Your task to perform on an android device: open a bookmark in the chrome app Image 0: 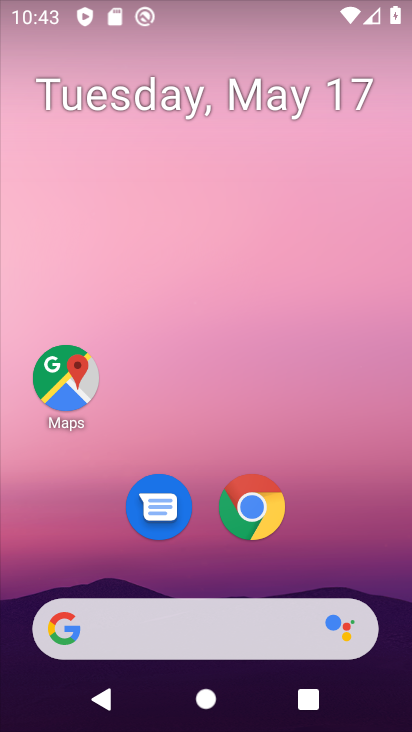
Step 0: drag from (381, 560) to (344, 151)
Your task to perform on an android device: open a bookmark in the chrome app Image 1: 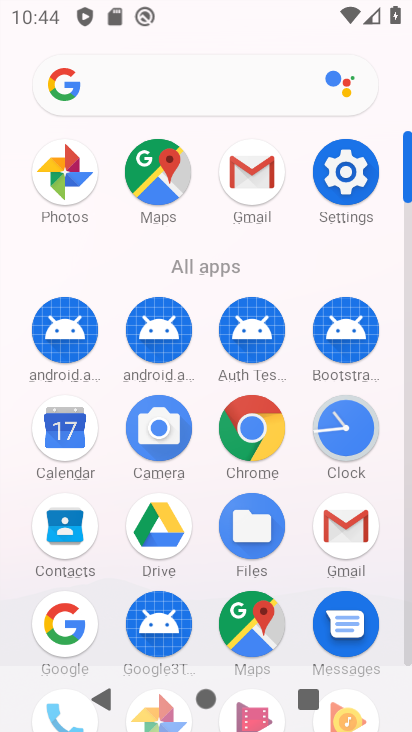
Step 1: click (261, 434)
Your task to perform on an android device: open a bookmark in the chrome app Image 2: 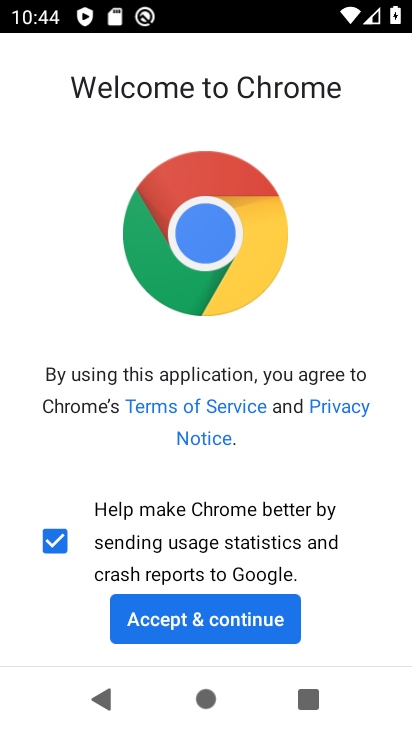
Step 2: click (239, 622)
Your task to perform on an android device: open a bookmark in the chrome app Image 3: 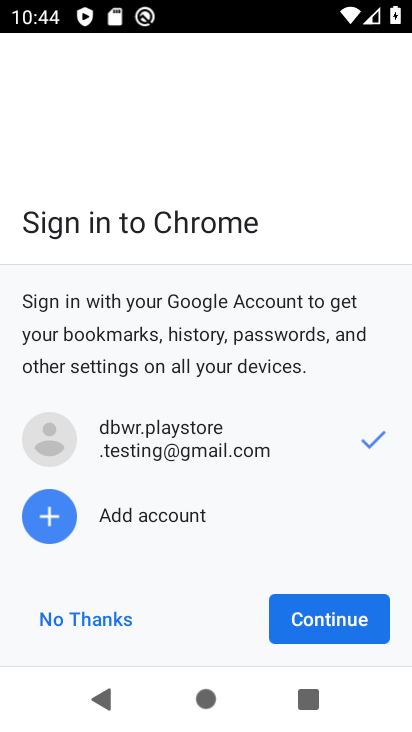
Step 3: click (287, 628)
Your task to perform on an android device: open a bookmark in the chrome app Image 4: 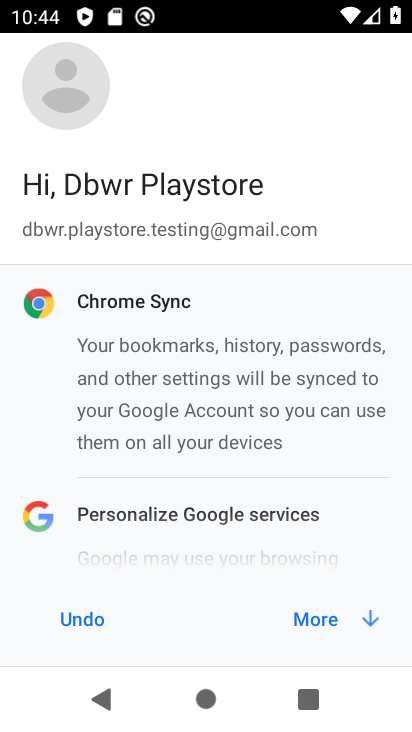
Step 4: click (292, 628)
Your task to perform on an android device: open a bookmark in the chrome app Image 5: 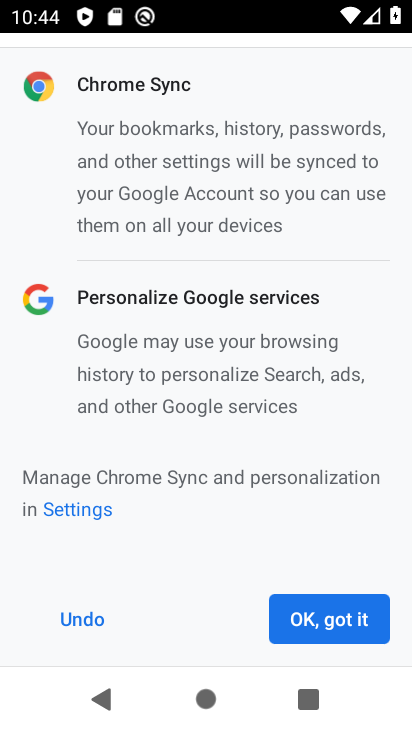
Step 5: click (293, 628)
Your task to perform on an android device: open a bookmark in the chrome app Image 6: 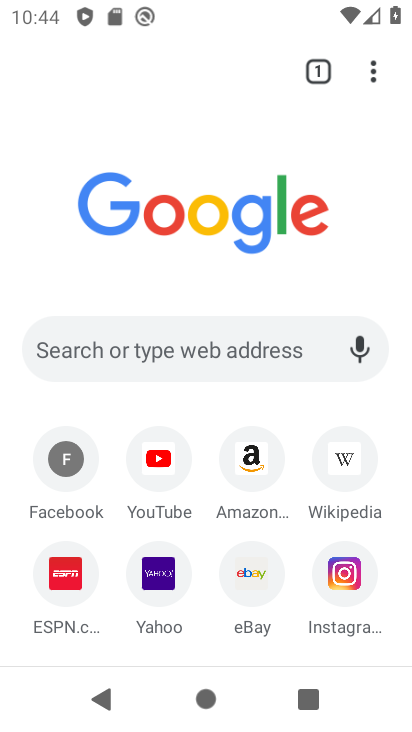
Step 6: task complete